Your task to perform on an android device: open chrome and create a bookmark for the current page Image 0: 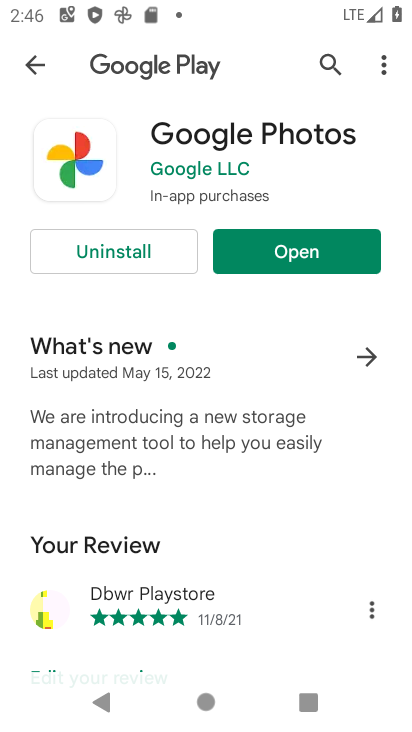
Step 0: press home button
Your task to perform on an android device: open chrome and create a bookmark for the current page Image 1: 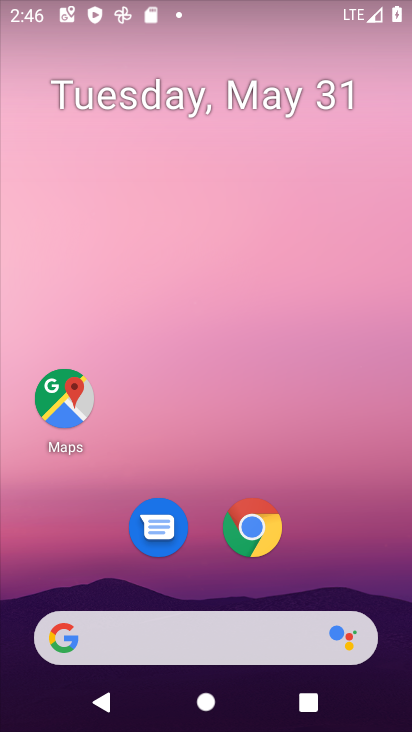
Step 1: drag from (361, 528) to (363, 49)
Your task to perform on an android device: open chrome and create a bookmark for the current page Image 2: 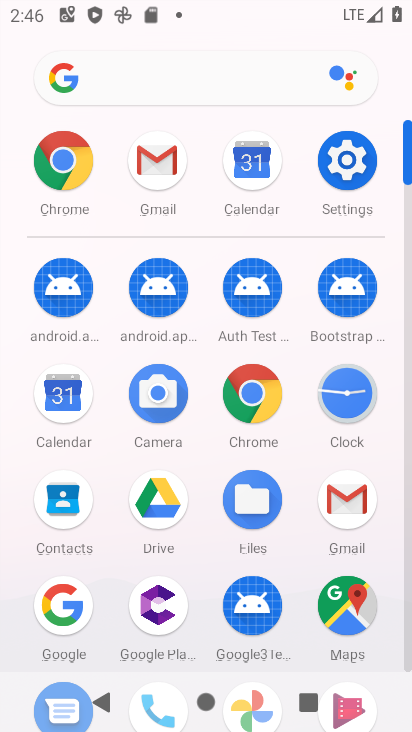
Step 2: click (59, 168)
Your task to perform on an android device: open chrome and create a bookmark for the current page Image 3: 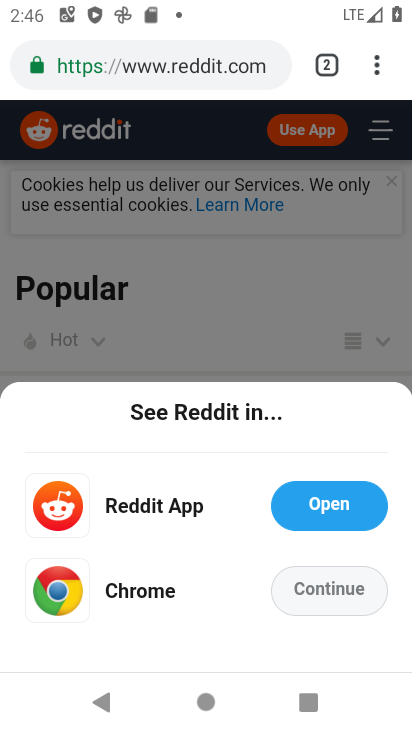
Step 3: task complete